Your task to perform on an android device: Open Maps and search for coffee Image 0: 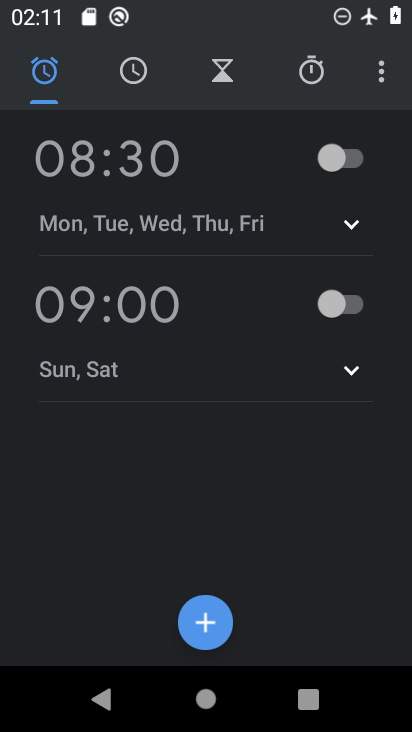
Step 0: press home button
Your task to perform on an android device: Open Maps and search for coffee Image 1: 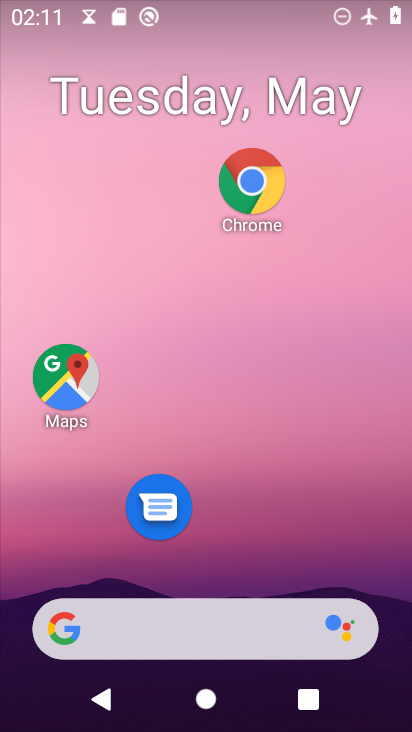
Step 1: click (76, 385)
Your task to perform on an android device: Open Maps and search for coffee Image 2: 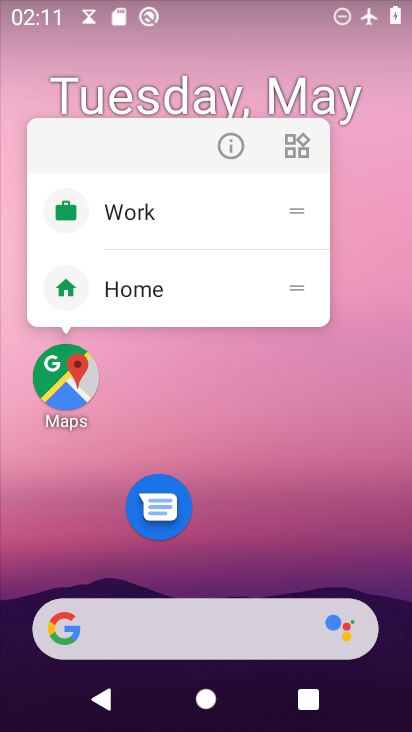
Step 2: click (56, 370)
Your task to perform on an android device: Open Maps and search for coffee Image 3: 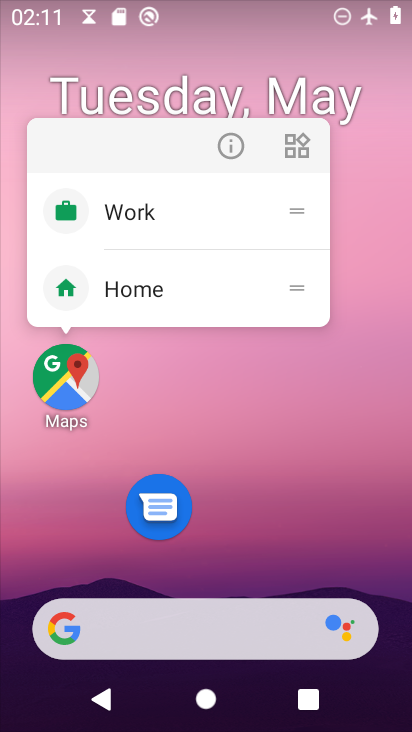
Step 3: click (70, 364)
Your task to perform on an android device: Open Maps and search for coffee Image 4: 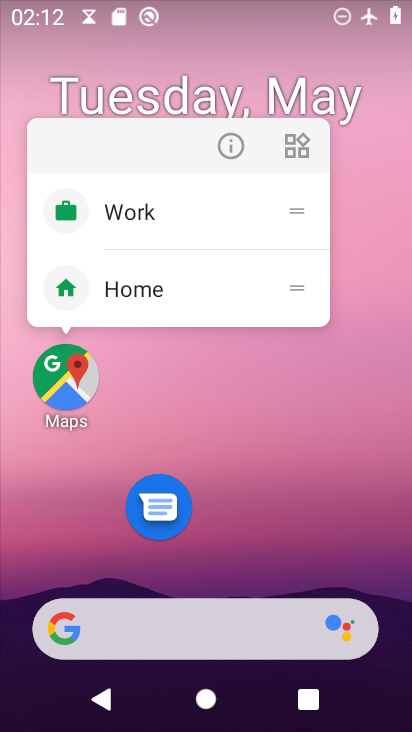
Step 4: click (68, 372)
Your task to perform on an android device: Open Maps and search for coffee Image 5: 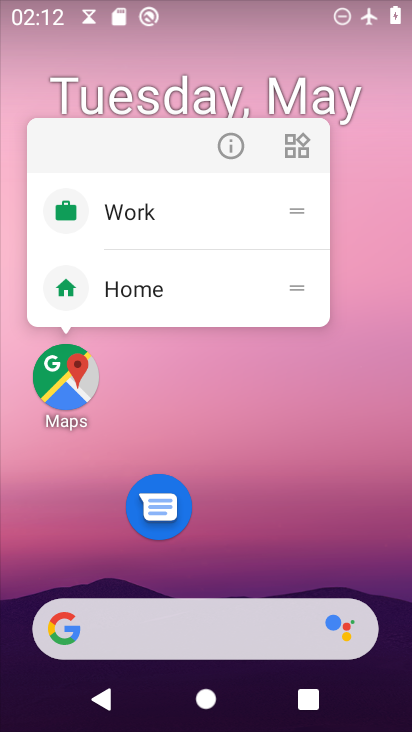
Step 5: click (67, 373)
Your task to perform on an android device: Open Maps and search for coffee Image 6: 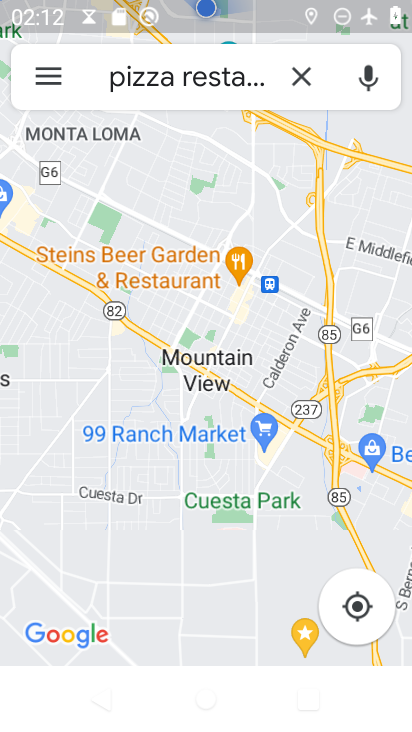
Step 6: click (305, 85)
Your task to perform on an android device: Open Maps and search for coffee Image 7: 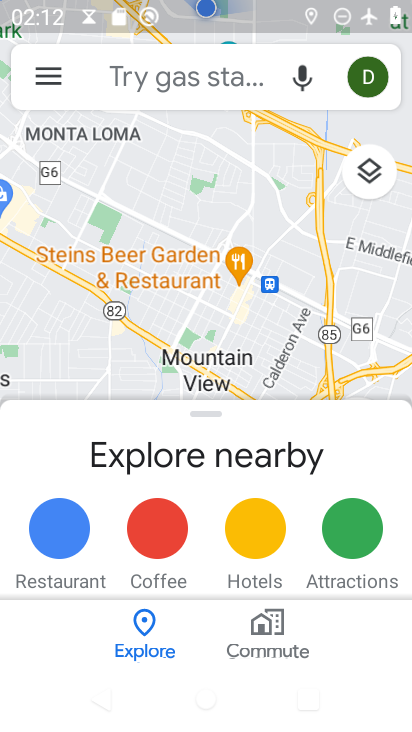
Step 7: click (209, 60)
Your task to perform on an android device: Open Maps and search for coffee Image 8: 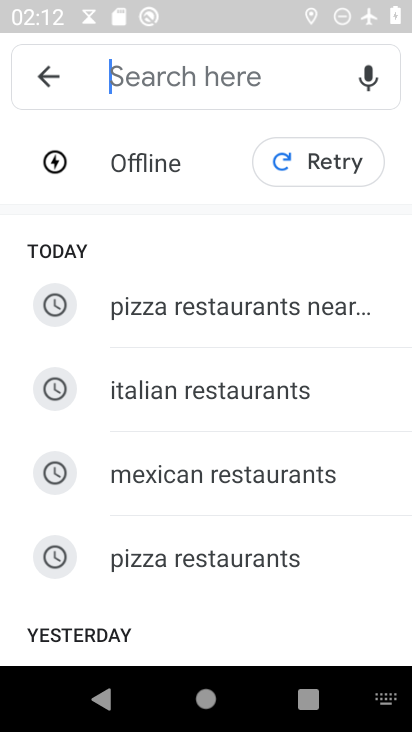
Step 8: drag from (200, 563) to (236, 299)
Your task to perform on an android device: Open Maps and search for coffee Image 9: 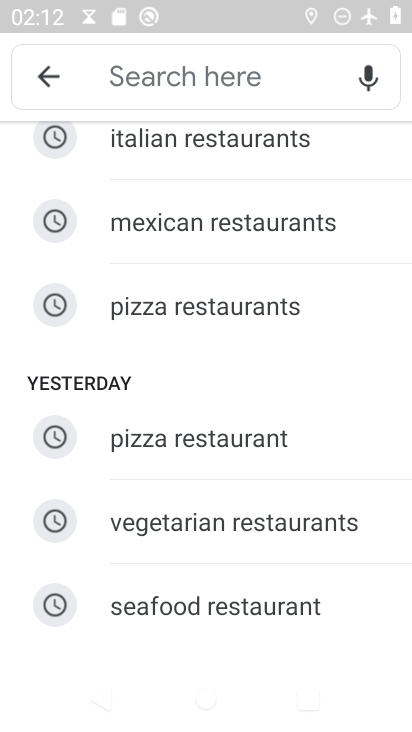
Step 9: click (189, 76)
Your task to perform on an android device: Open Maps and search for coffee Image 10: 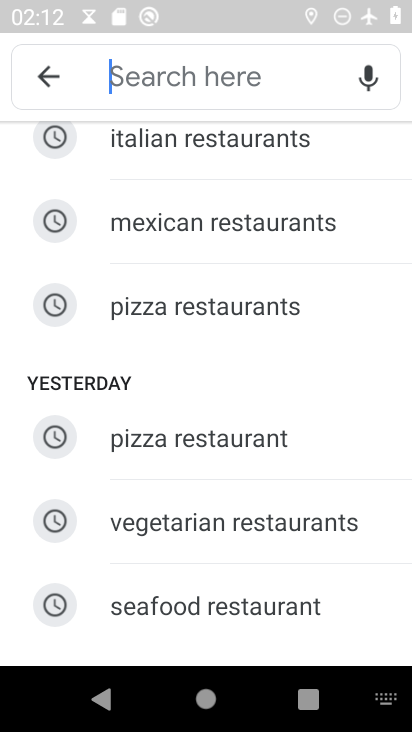
Step 10: click (215, 75)
Your task to perform on an android device: Open Maps and search for coffee Image 11: 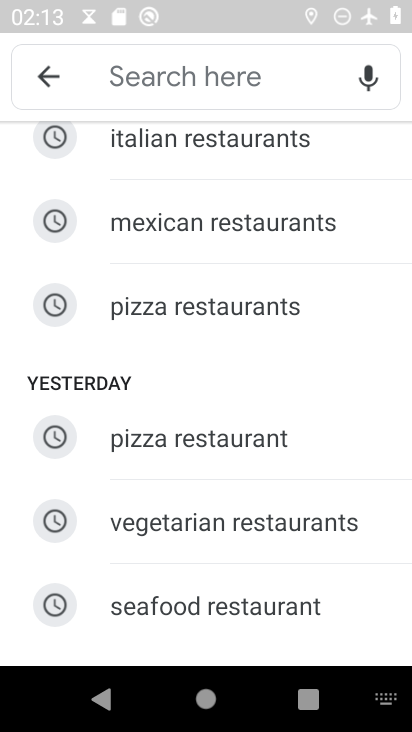
Step 11: type "coffee"
Your task to perform on an android device: Open Maps and search for coffee Image 12: 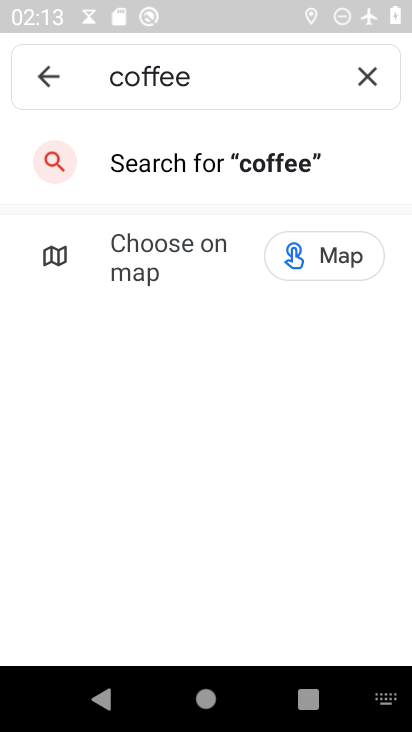
Step 12: click (254, 156)
Your task to perform on an android device: Open Maps and search for coffee Image 13: 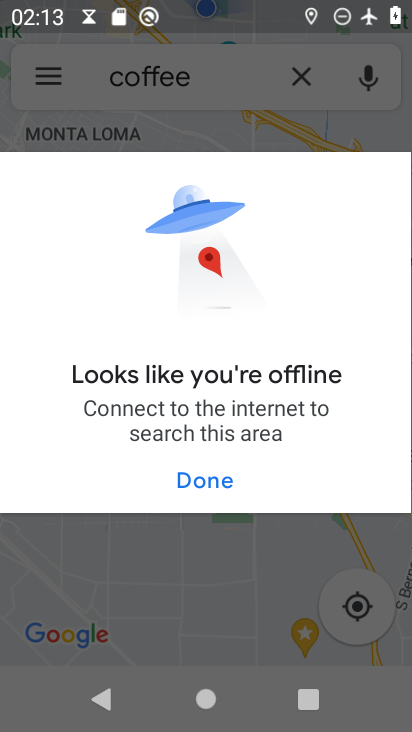
Step 13: task complete